Your task to perform on an android device: turn off wifi Image 0: 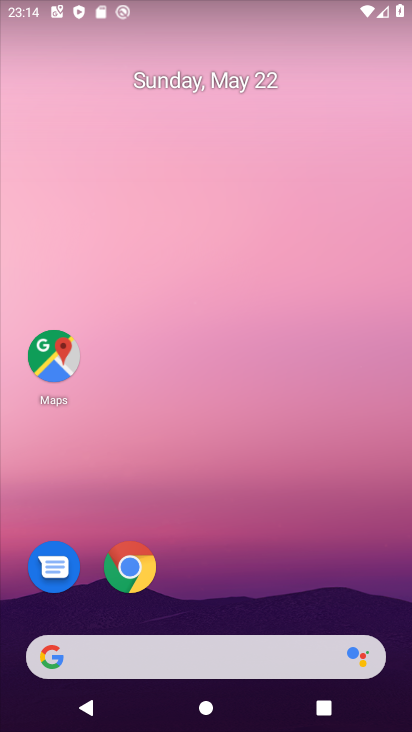
Step 0: drag from (277, 482) to (269, 20)
Your task to perform on an android device: turn off wifi Image 1: 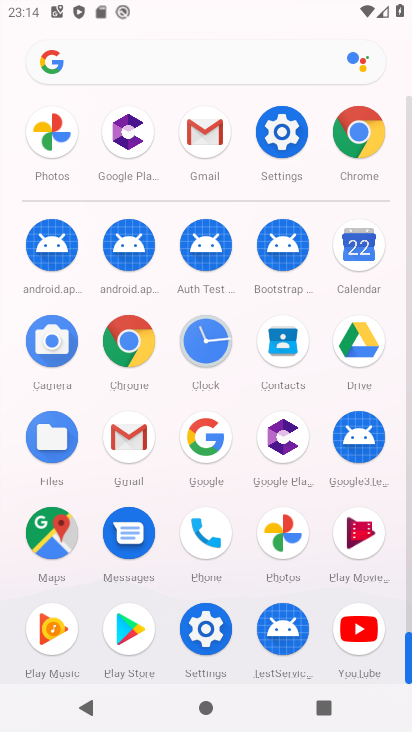
Step 1: click (205, 627)
Your task to perform on an android device: turn off wifi Image 2: 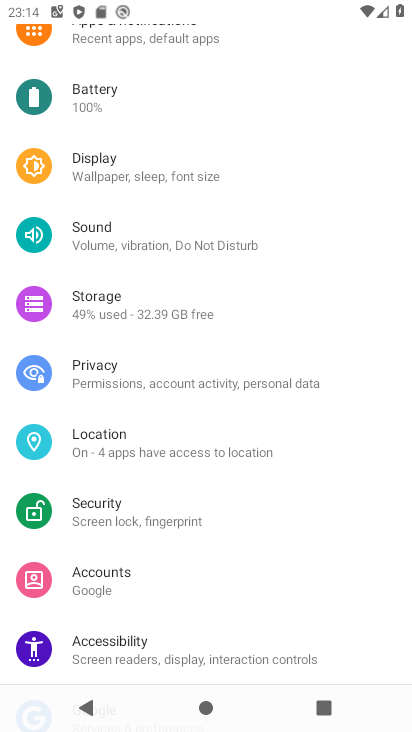
Step 2: drag from (184, 108) to (186, 497)
Your task to perform on an android device: turn off wifi Image 3: 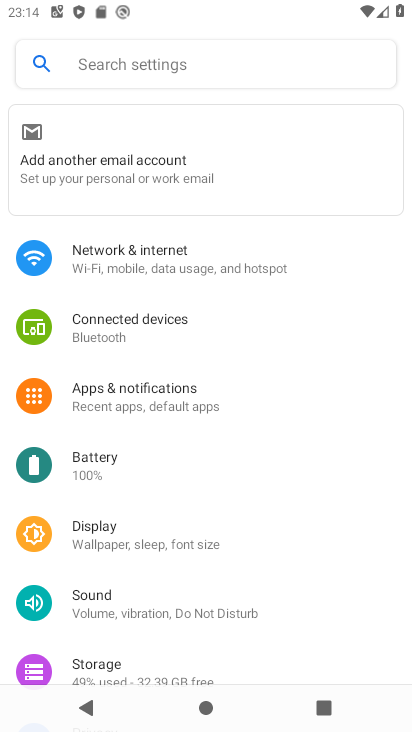
Step 3: click (164, 253)
Your task to perform on an android device: turn off wifi Image 4: 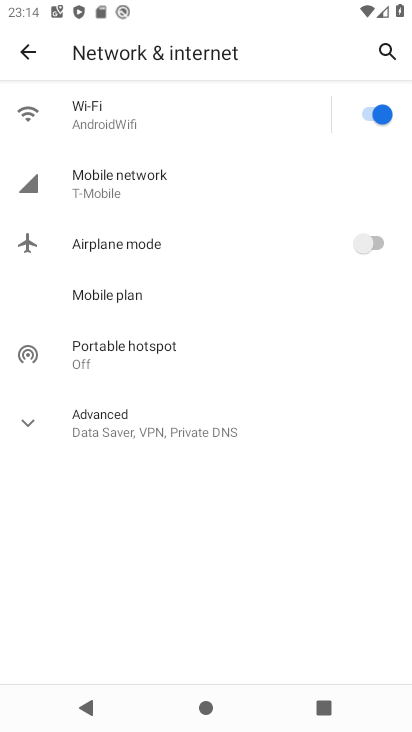
Step 4: click (377, 116)
Your task to perform on an android device: turn off wifi Image 5: 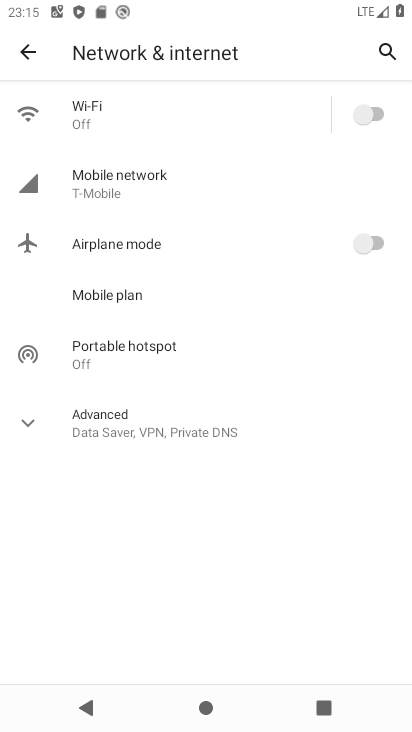
Step 5: task complete